Your task to perform on an android device: see sites visited before in the chrome app Image 0: 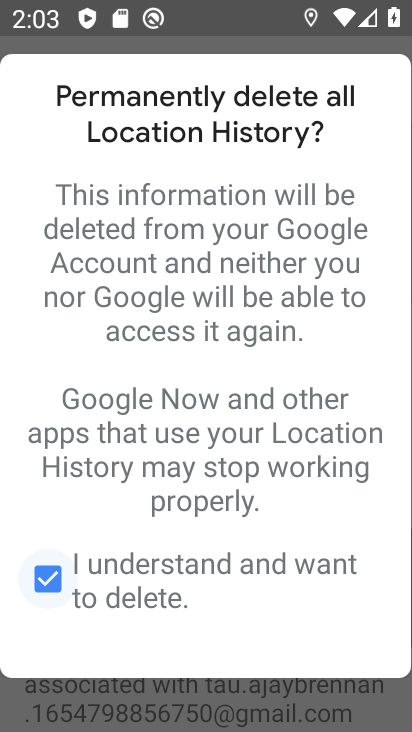
Step 0: press back button
Your task to perform on an android device: see sites visited before in the chrome app Image 1: 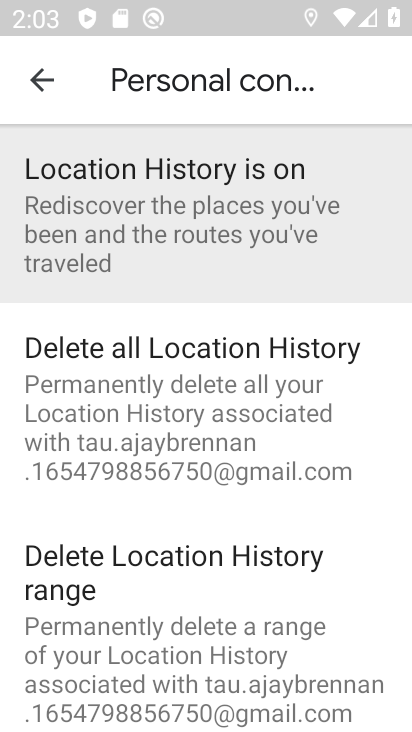
Step 1: press back button
Your task to perform on an android device: see sites visited before in the chrome app Image 2: 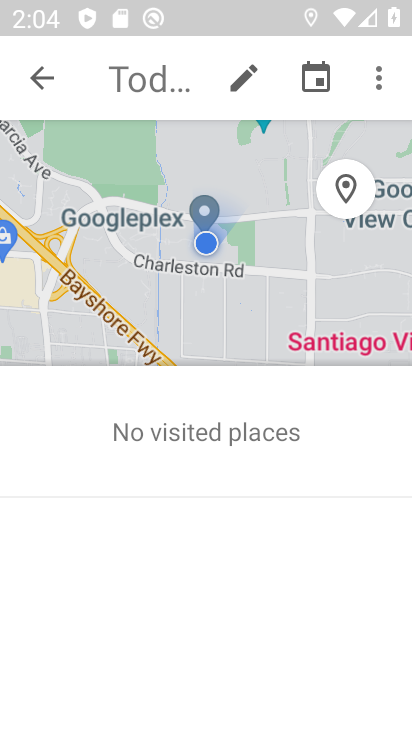
Step 2: press back button
Your task to perform on an android device: see sites visited before in the chrome app Image 3: 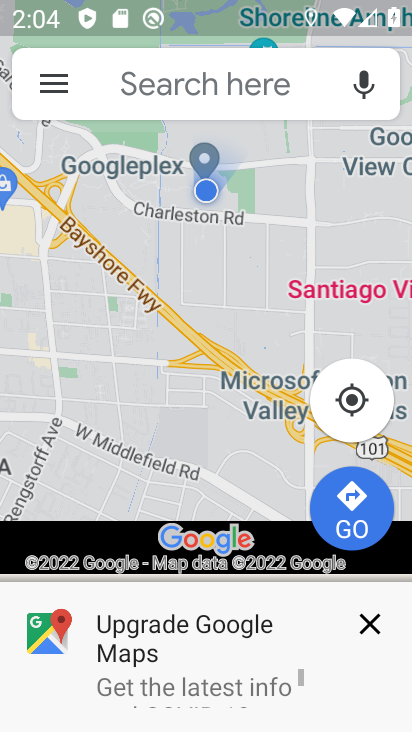
Step 3: press home button
Your task to perform on an android device: see sites visited before in the chrome app Image 4: 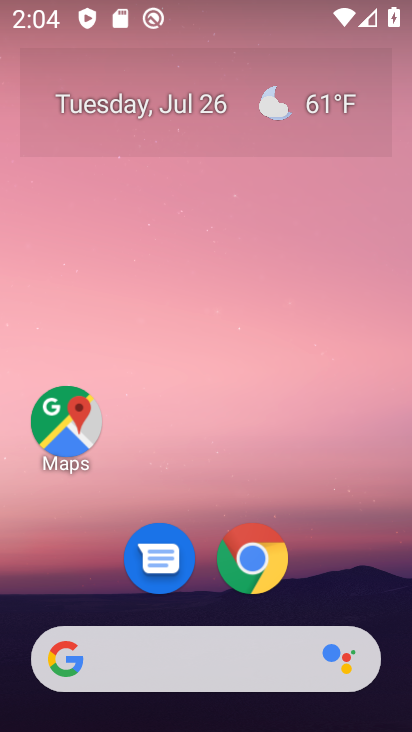
Step 4: click (257, 560)
Your task to perform on an android device: see sites visited before in the chrome app Image 5: 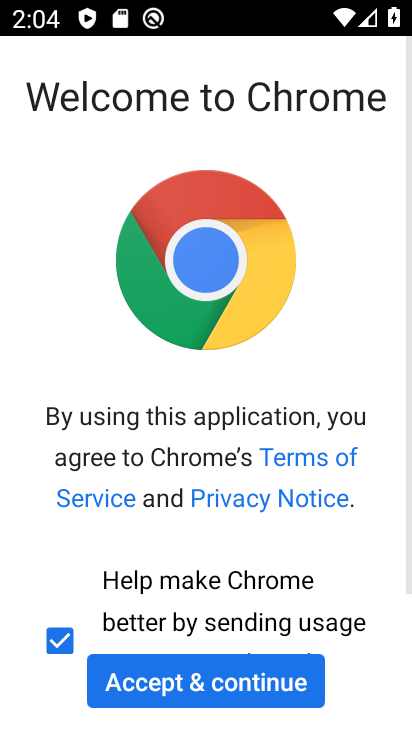
Step 5: click (222, 691)
Your task to perform on an android device: see sites visited before in the chrome app Image 6: 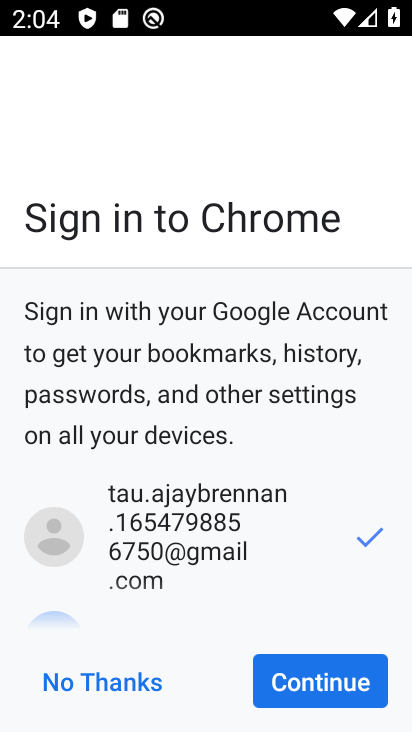
Step 6: click (283, 690)
Your task to perform on an android device: see sites visited before in the chrome app Image 7: 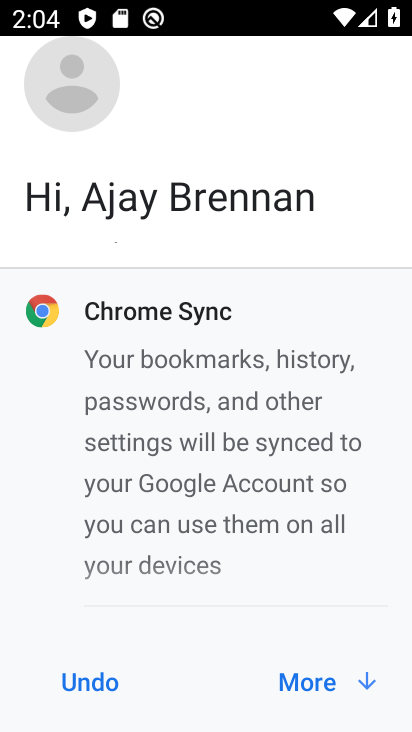
Step 7: click (285, 686)
Your task to perform on an android device: see sites visited before in the chrome app Image 8: 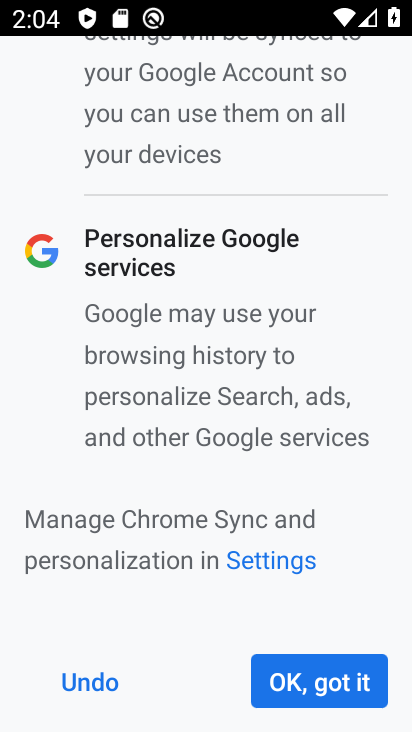
Step 8: click (342, 690)
Your task to perform on an android device: see sites visited before in the chrome app Image 9: 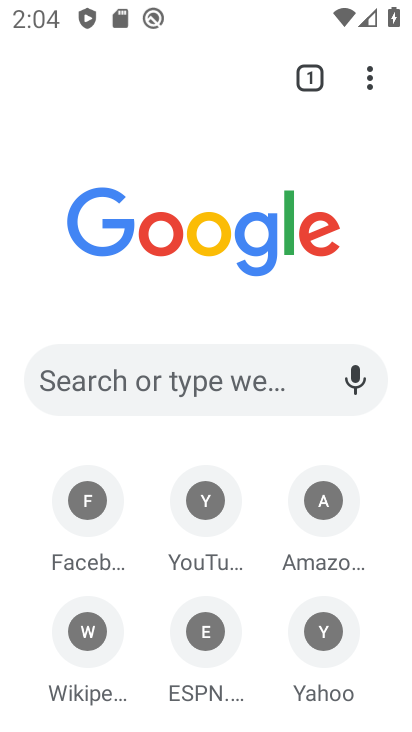
Step 9: task complete